Your task to perform on an android device: Show me popular videos on Youtube Image 0: 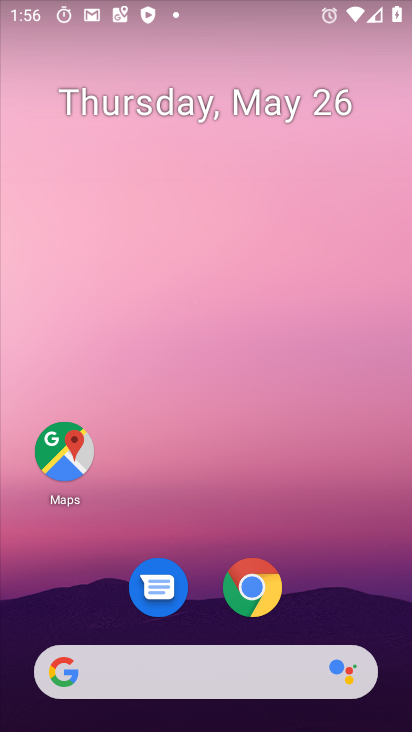
Step 0: drag from (231, 693) to (268, 160)
Your task to perform on an android device: Show me popular videos on Youtube Image 1: 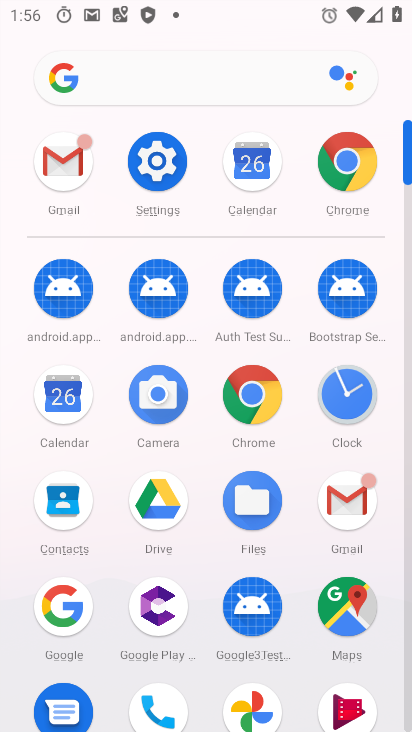
Step 1: drag from (201, 641) to (180, 423)
Your task to perform on an android device: Show me popular videos on Youtube Image 2: 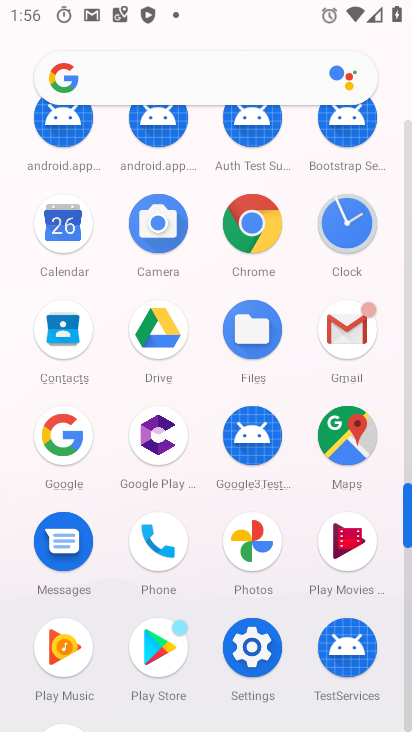
Step 2: drag from (208, 585) to (201, 334)
Your task to perform on an android device: Show me popular videos on Youtube Image 3: 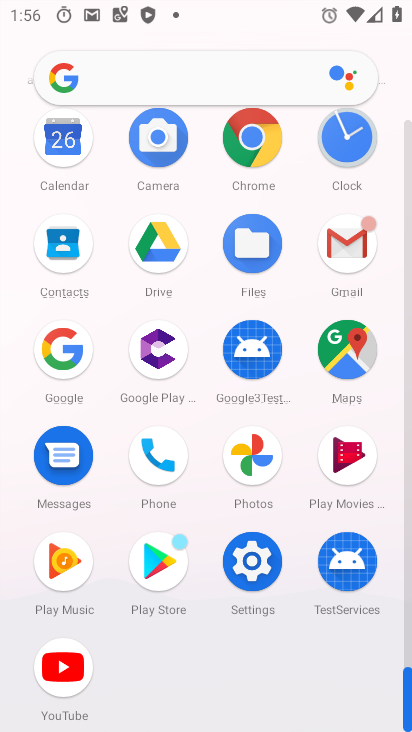
Step 3: click (57, 656)
Your task to perform on an android device: Show me popular videos on Youtube Image 4: 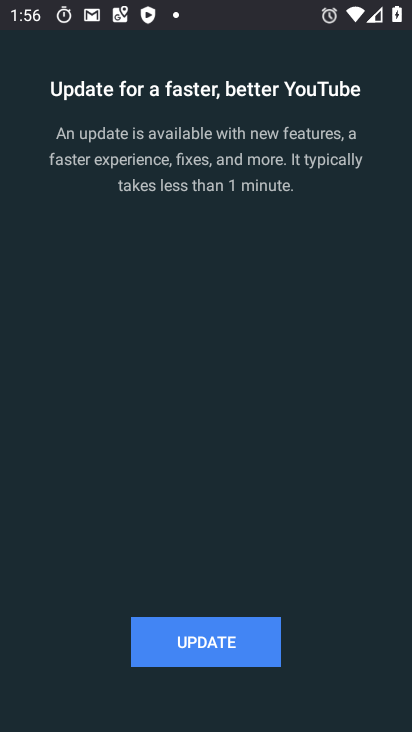
Step 4: click (169, 654)
Your task to perform on an android device: Show me popular videos on Youtube Image 5: 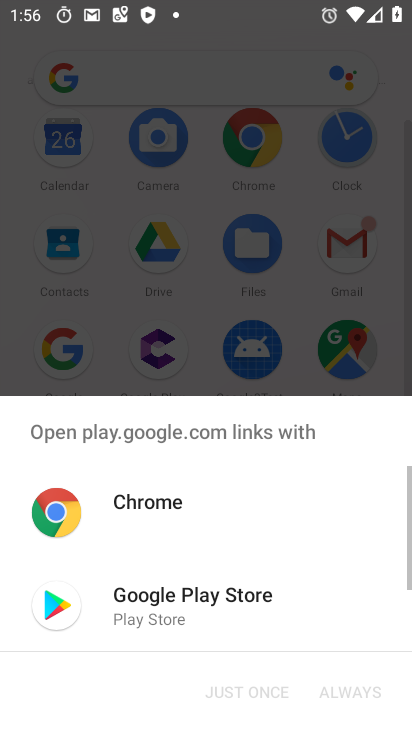
Step 5: click (126, 617)
Your task to perform on an android device: Show me popular videos on Youtube Image 6: 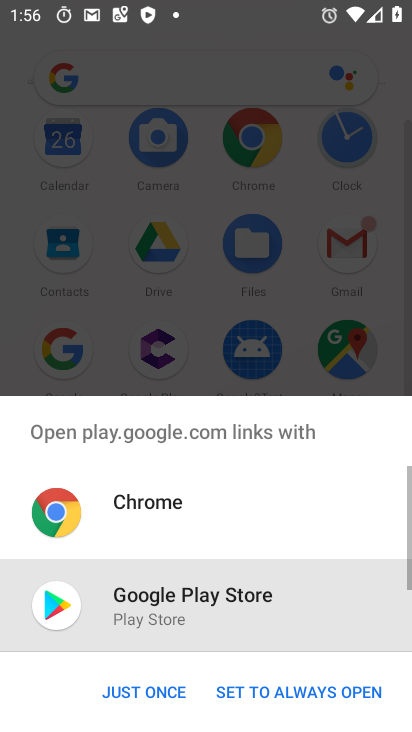
Step 6: drag from (216, 698) to (123, 709)
Your task to perform on an android device: Show me popular videos on Youtube Image 7: 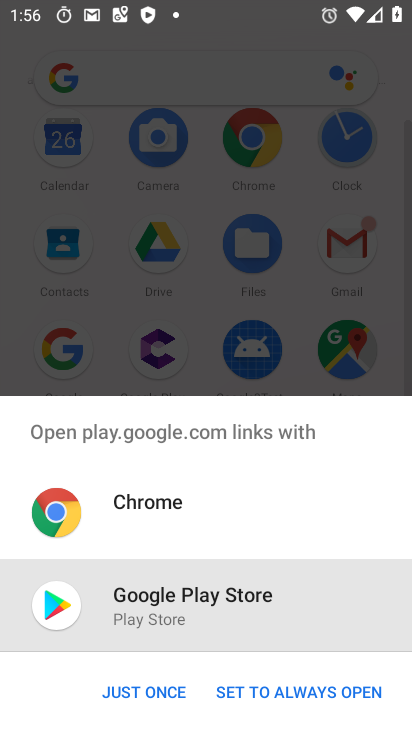
Step 7: click (131, 692)
Your task to perform on an android device: Show me popular videos on Youtube Image 8: 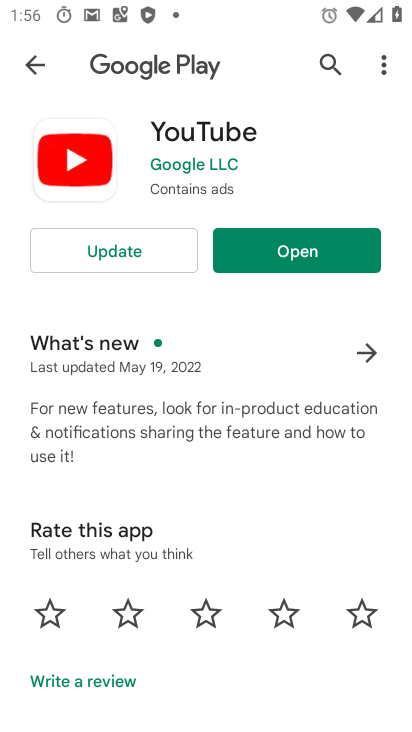
Step 8: click (144, 250)
Your task to perform on an android device: Show me popular videos on Youtube Image 9: 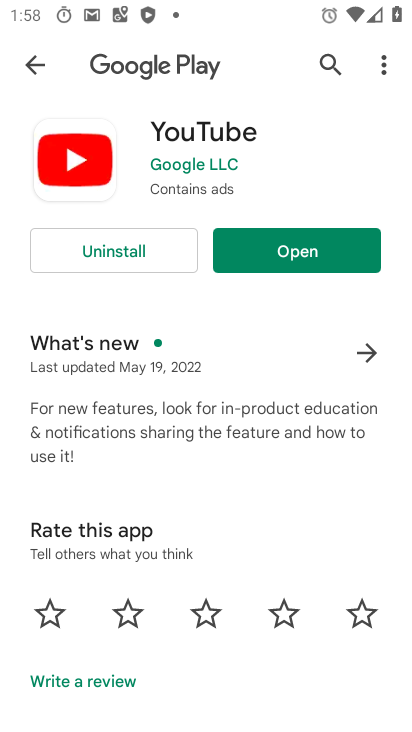
Step 9: click (292, 262)
Your task to perform on an android device: Show me popular videos on Youtube Image 10: 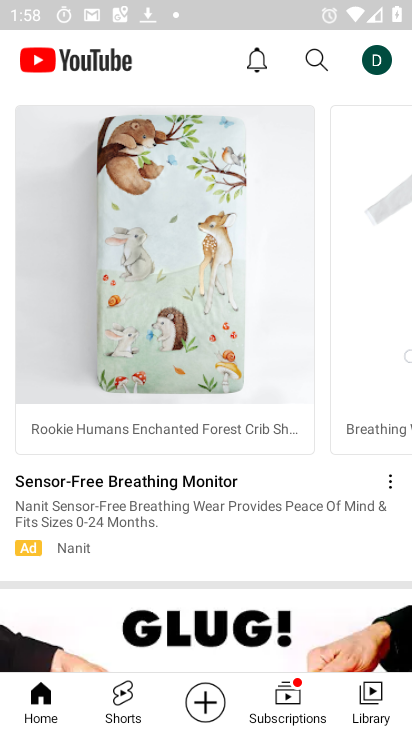
Step 10: click (376, 711)
Your task to perform on an android device: Show me popular videos on Youtube Image 11: 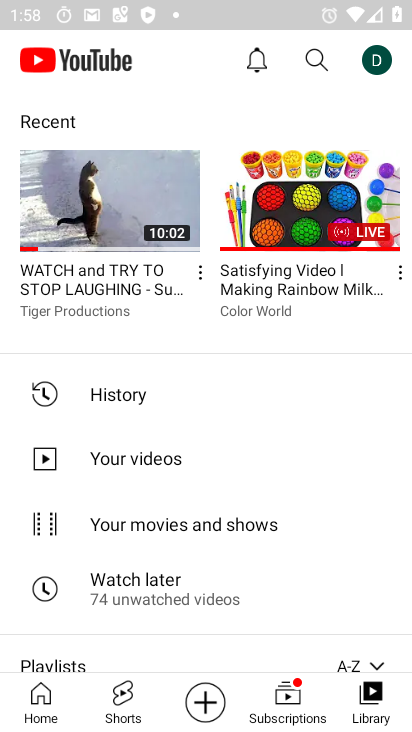
Step 11: click (317, 55)
Your task to perform on an android device: Show me popular videos on Youtube Image 12: 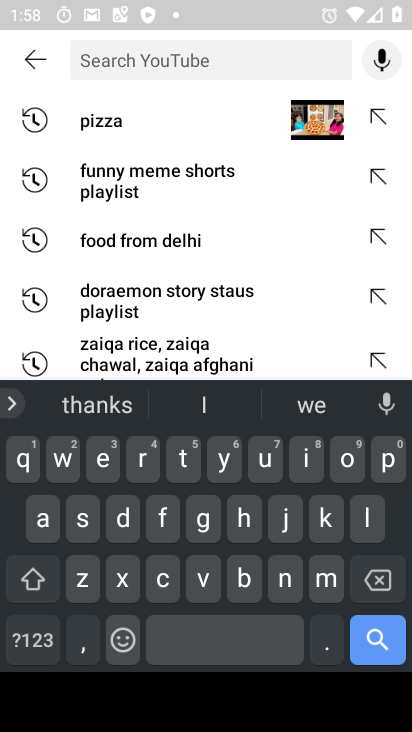
Step 12: click (380, 467)
Your task to perform on an android device: Show me popular videos on Youtube Image 13: 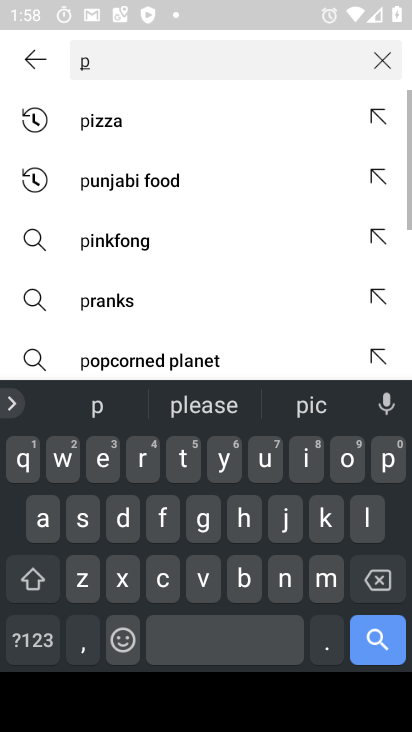
Step 13: click (341, 458)
Your task to perform on an android device: Show me popular videos on Youtube Image 14: 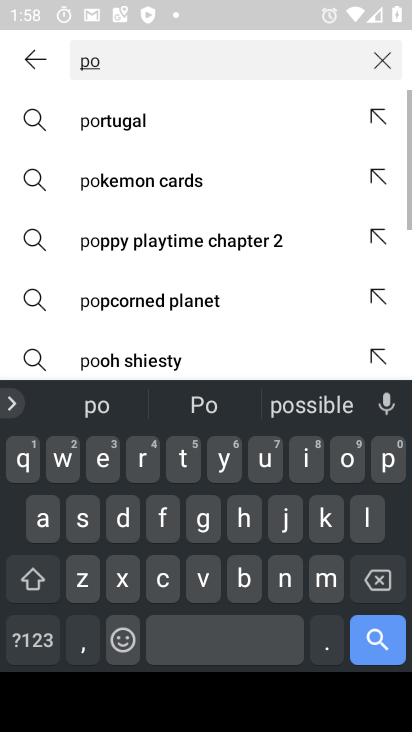
Step 14: click (389, 468)
Your task to perform on an android device: Show me popular videos on Youtube Image 15: 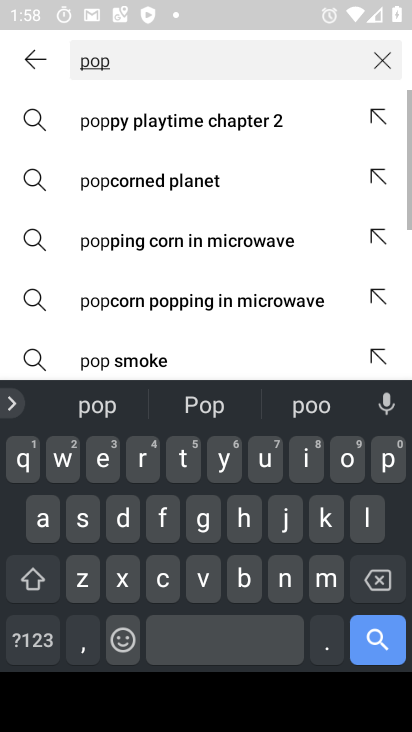
Step 15: click (269, 462)
Your task to perform on an android device: Show me popular videos on Youtube Image 16: 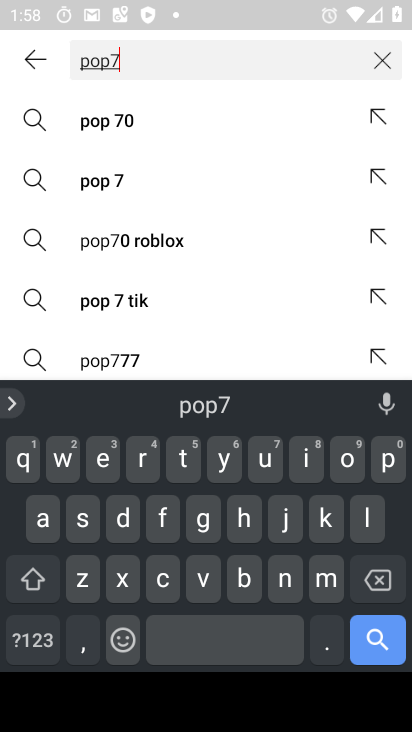
Step 16: click (370, 579)
Your task to perform on an android device: Show me popular videos on Youtube Image 17: 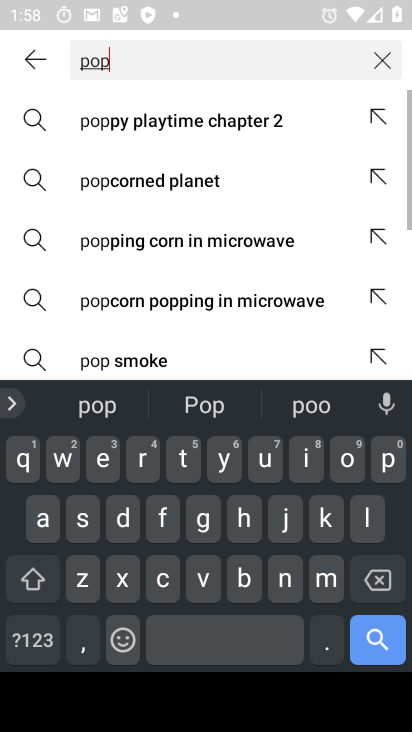
Step 17: click (365, 570)
Your task to perform on an android device: Show me popular videos on Youtube Image 18: 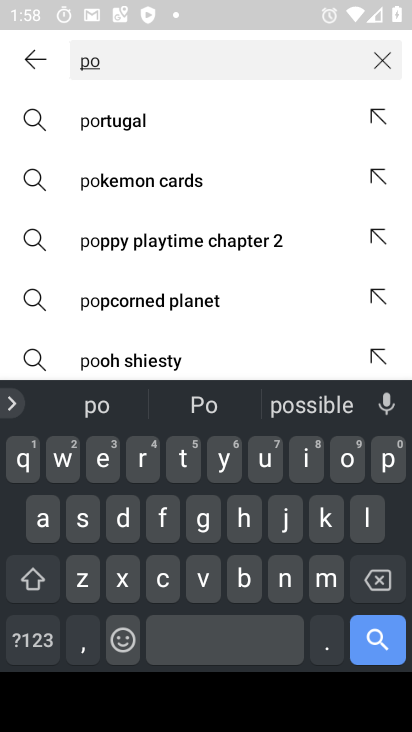
Step 18: click (389, 467)
Your task to perform on an android device: Show me popular videos on Youtube Image 19: 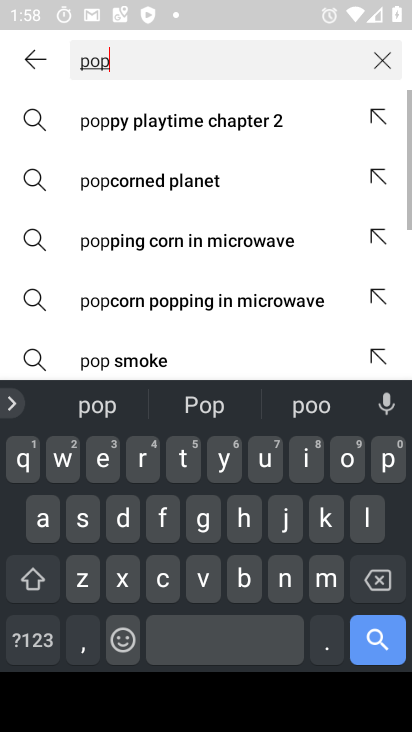
Step 19: click (259, 457)
Your task to perform on an android device: Show me popular videos on Youtube Image 20: 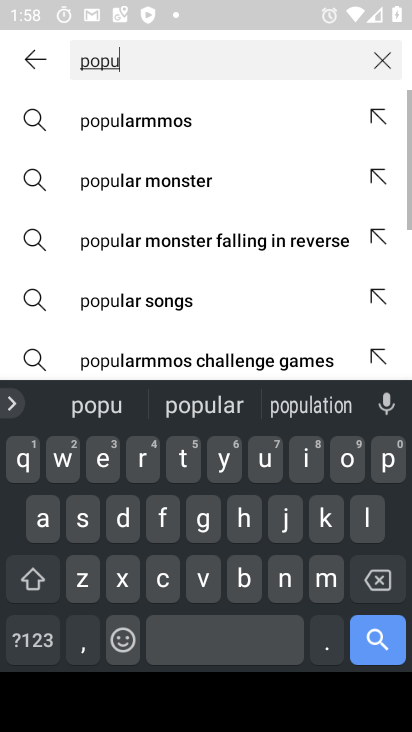
Step 20: click (218, 405)
Your task to perform on an android device: Show me popular videos on Youtube Image 21: 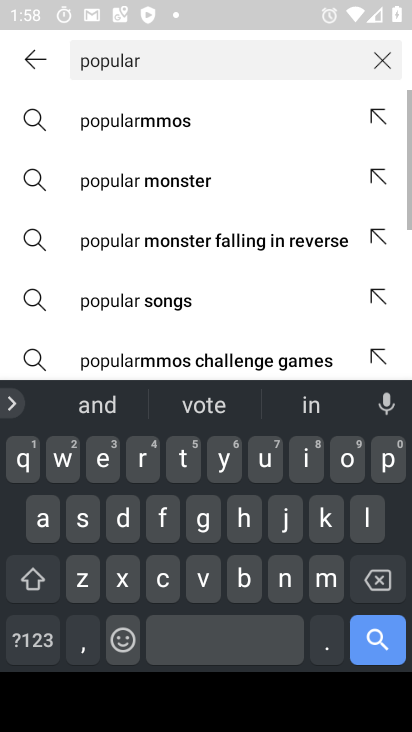
Step 21: click (206, 583)
Your task to perform on an android device: Show me popular videos on Youtube Image 22: 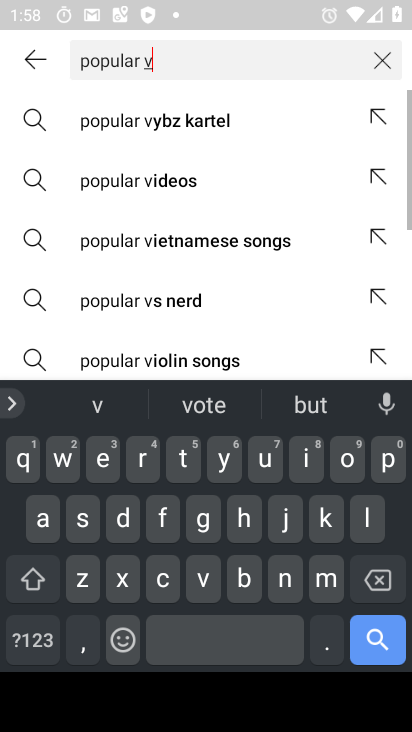
Step 22: click (174, 180)
Your task to perform on an android device: Show me popular videos on Youtube Image 23: 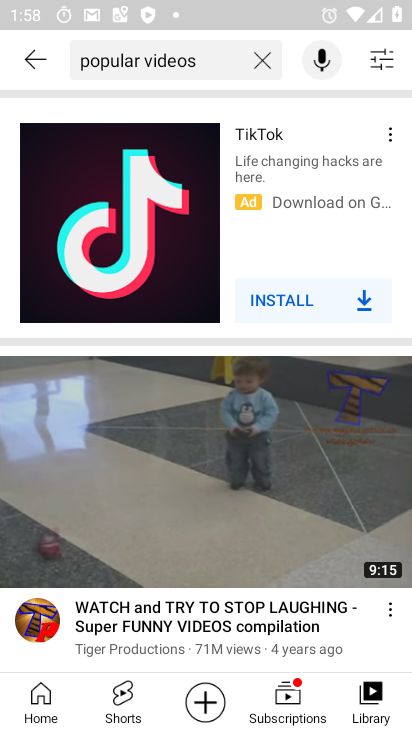
Step 23: task complete